Your task to perform on an android device: Show me popular games on the Play Store Image 0: 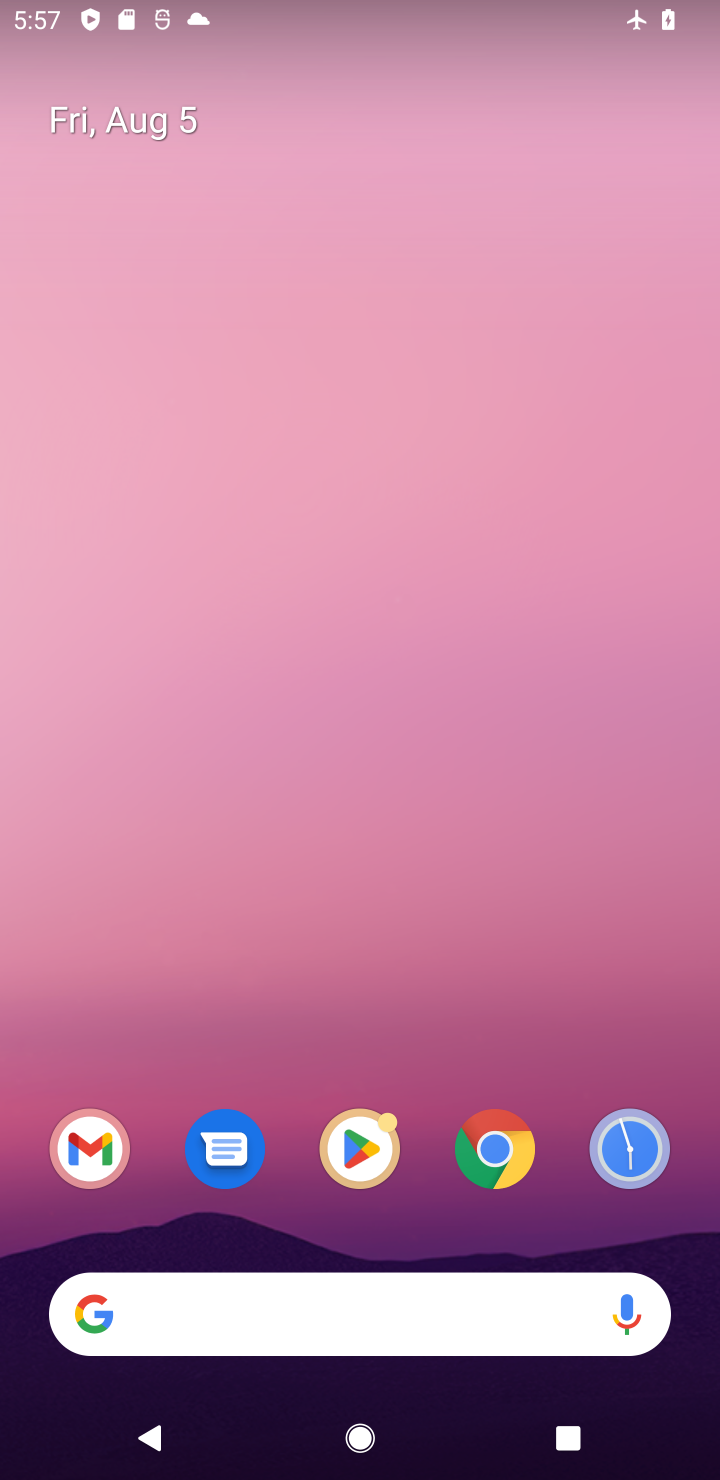
Step 0: click (350, 1152)
Your task to perform on an android device: Show me popular games on the Play Store Image 1: 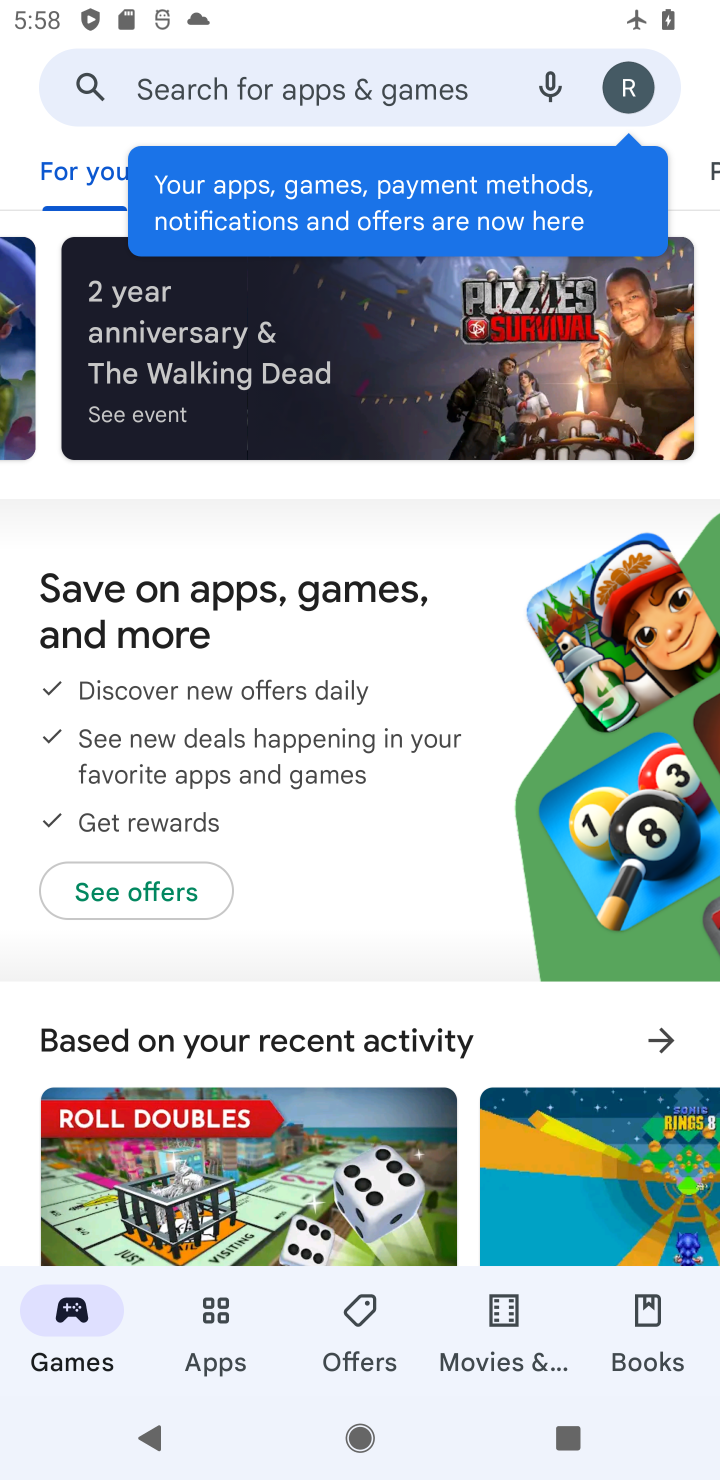
Step 1: click (696, 213)
Your task to perform on an android device: Show me popular games on the Play Store Image 2: 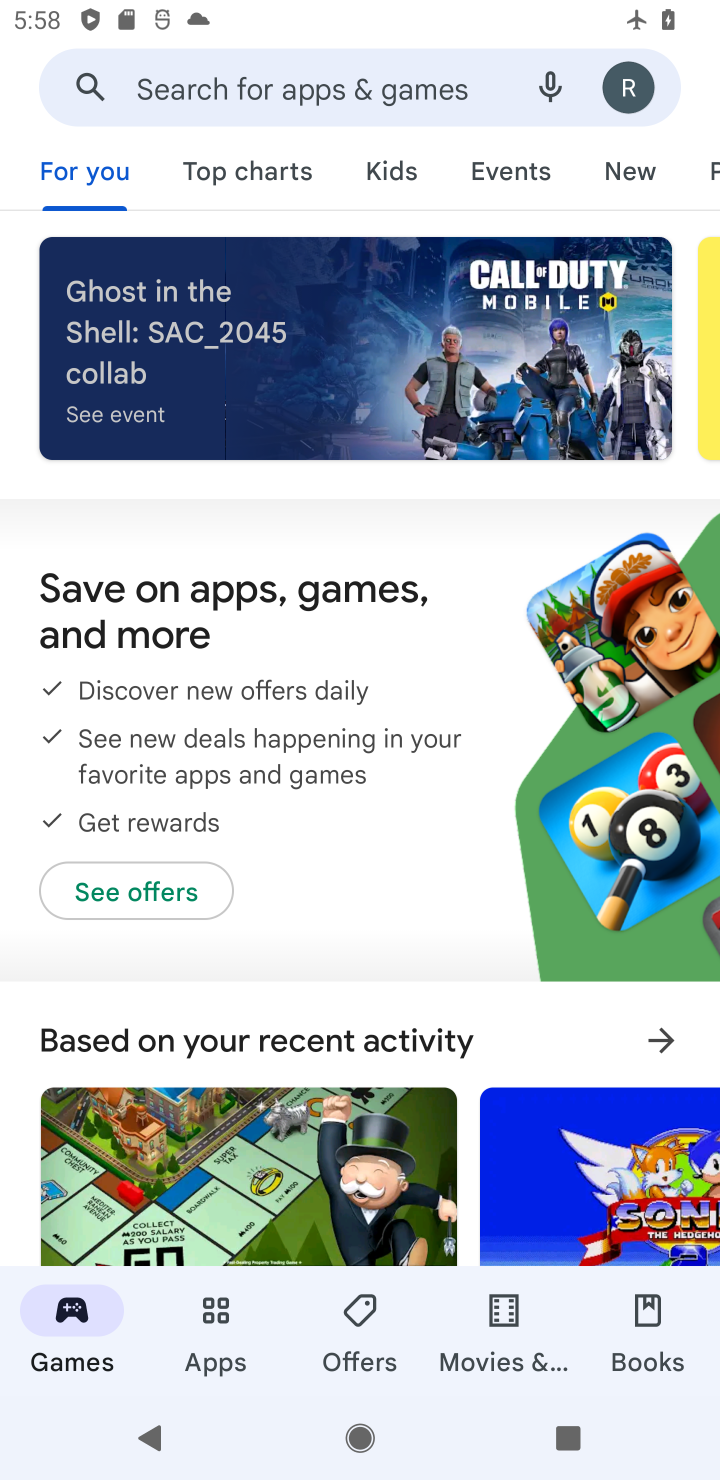
Step 2: click (624, 166)
Your task to perform on an android device: Show me popular games on the Play Store Image 3: 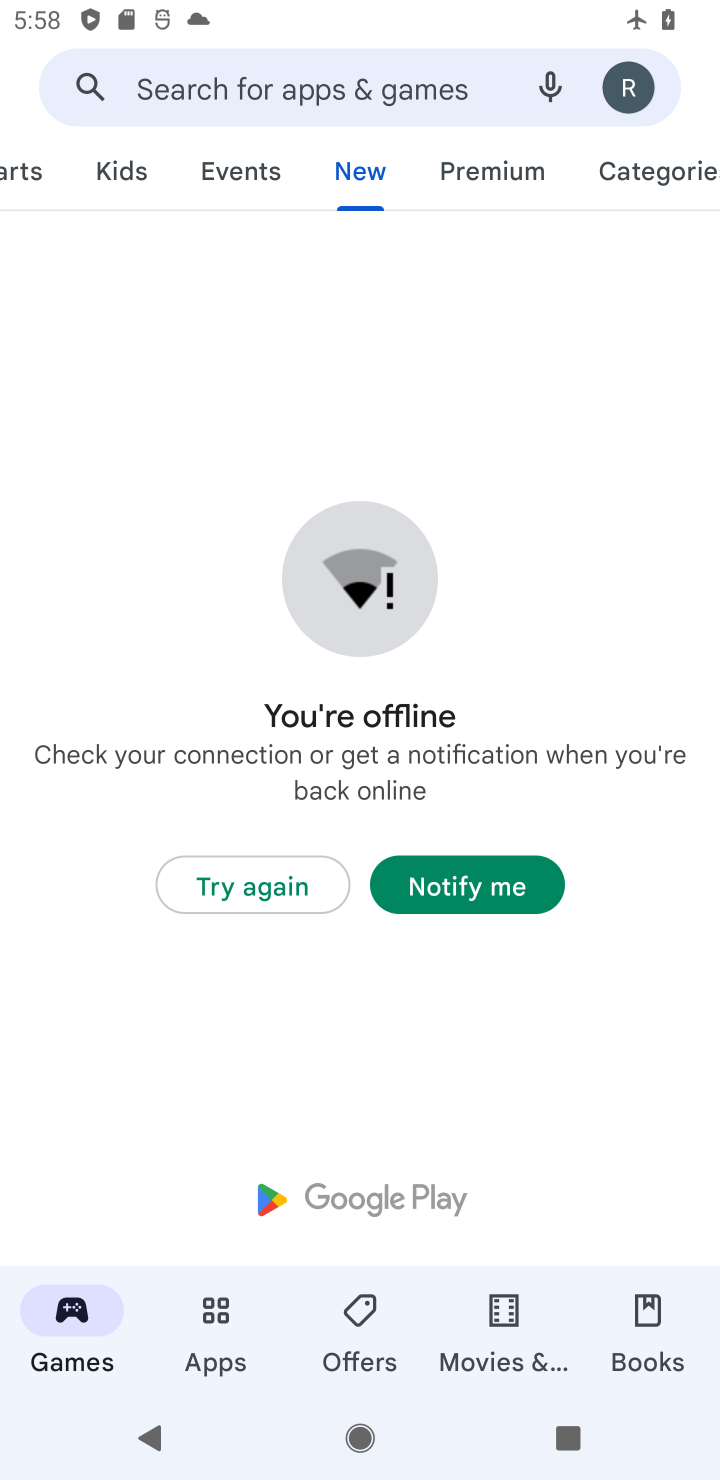
Step 3: click (22, 175)
Your task to perform on an android device: Show me popular games on the Play Store Image 4: 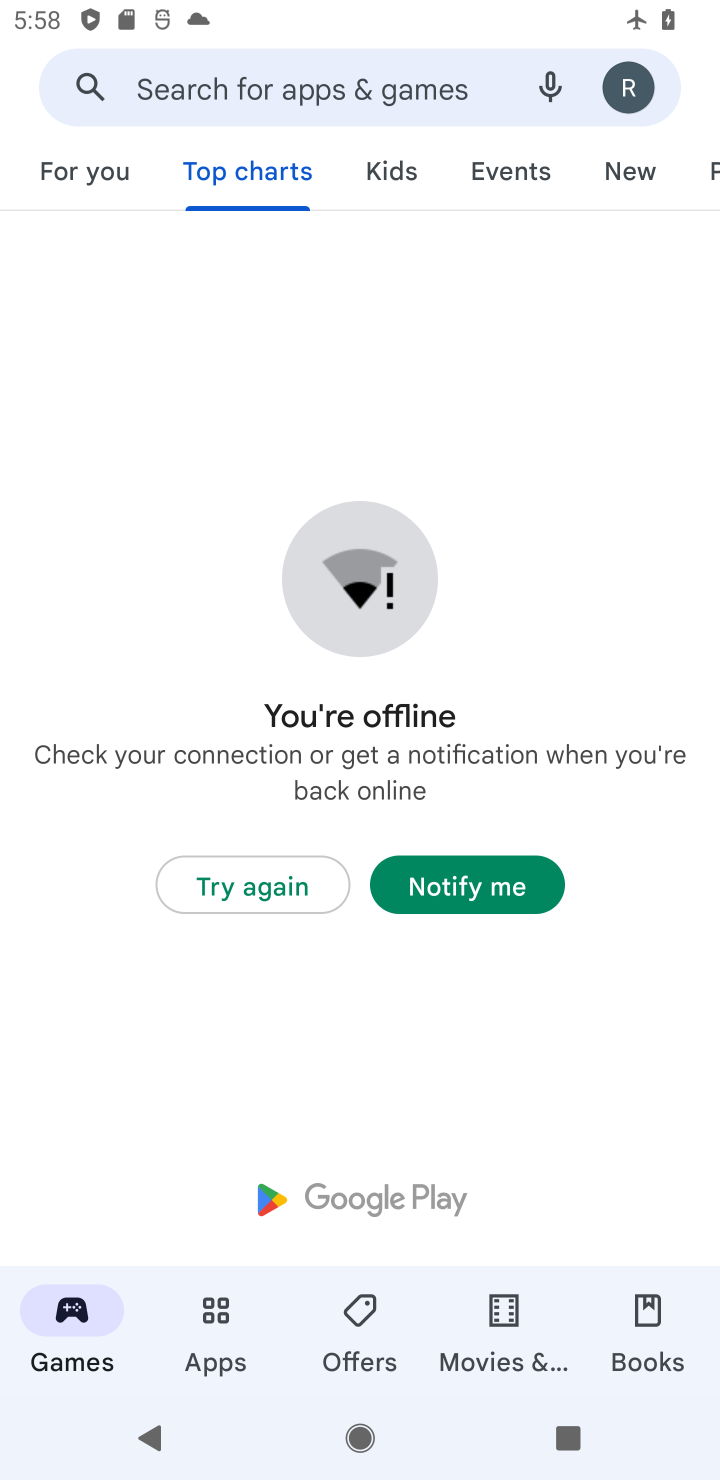
Step 4: drag from (451, 18) to (278, 1098)
Your task to perform on an android device: Show me popular games on the Play Store Image 5: 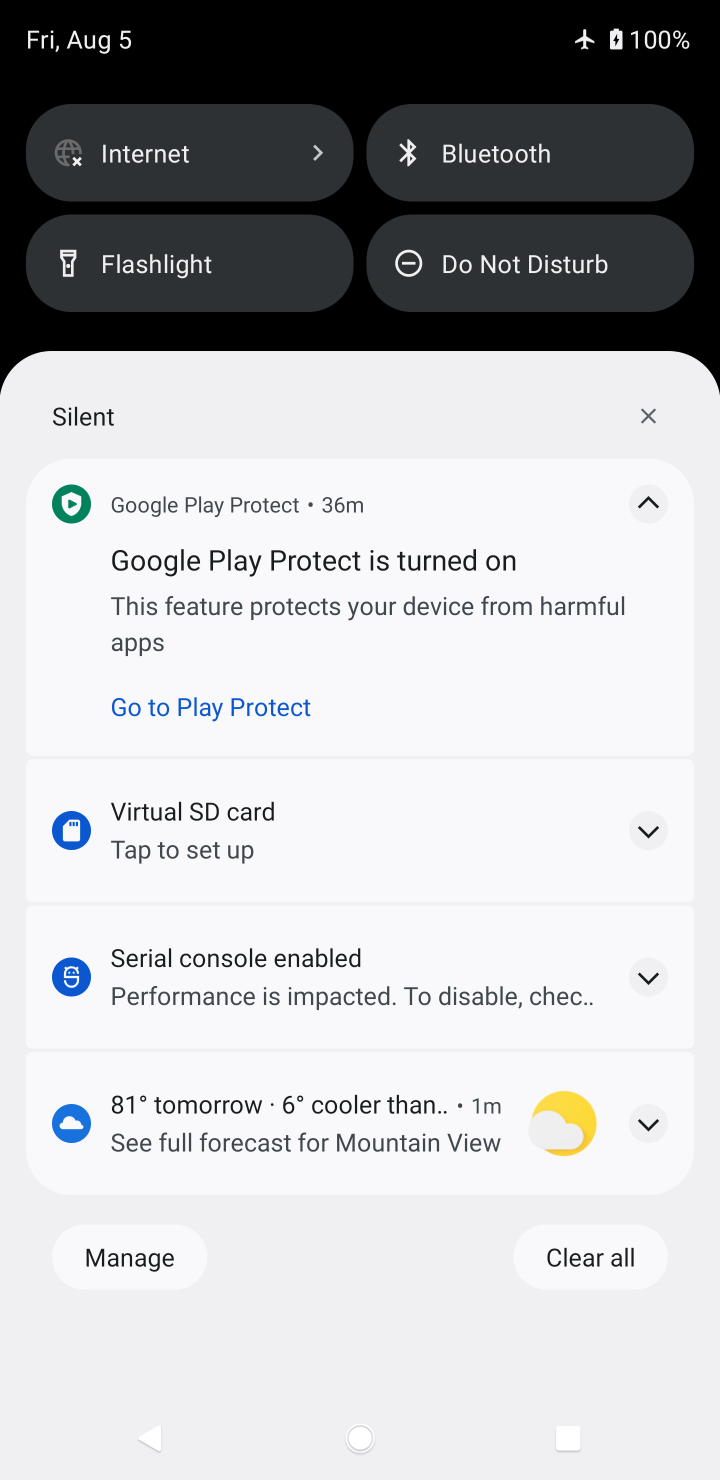
Step 5: drag from (410, 333) to (441, 1047)
Your task to perform on an android device: Show me popular games on the Play Store Image 6: 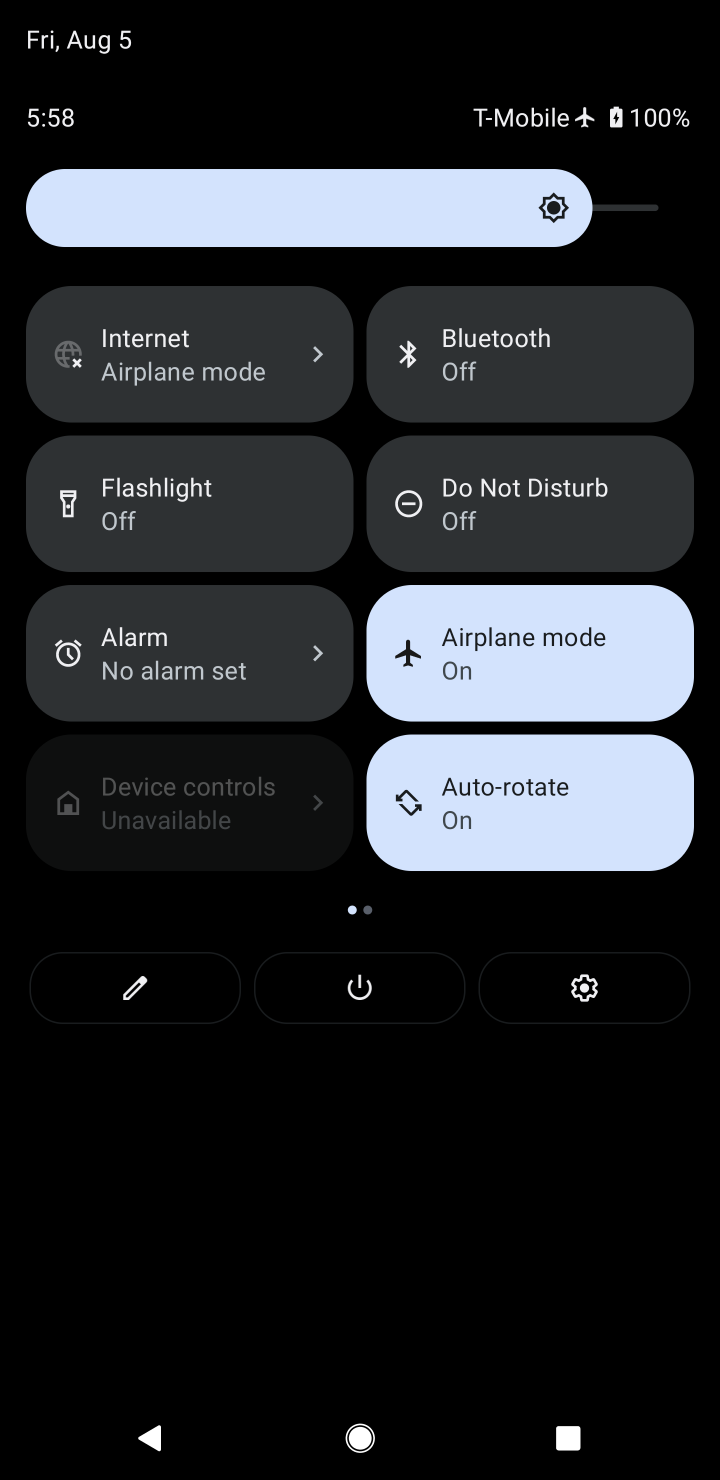
Step 6: click (466, 662)
Your task to perform on an android device: Show me popular games on the Play Store Image 7: 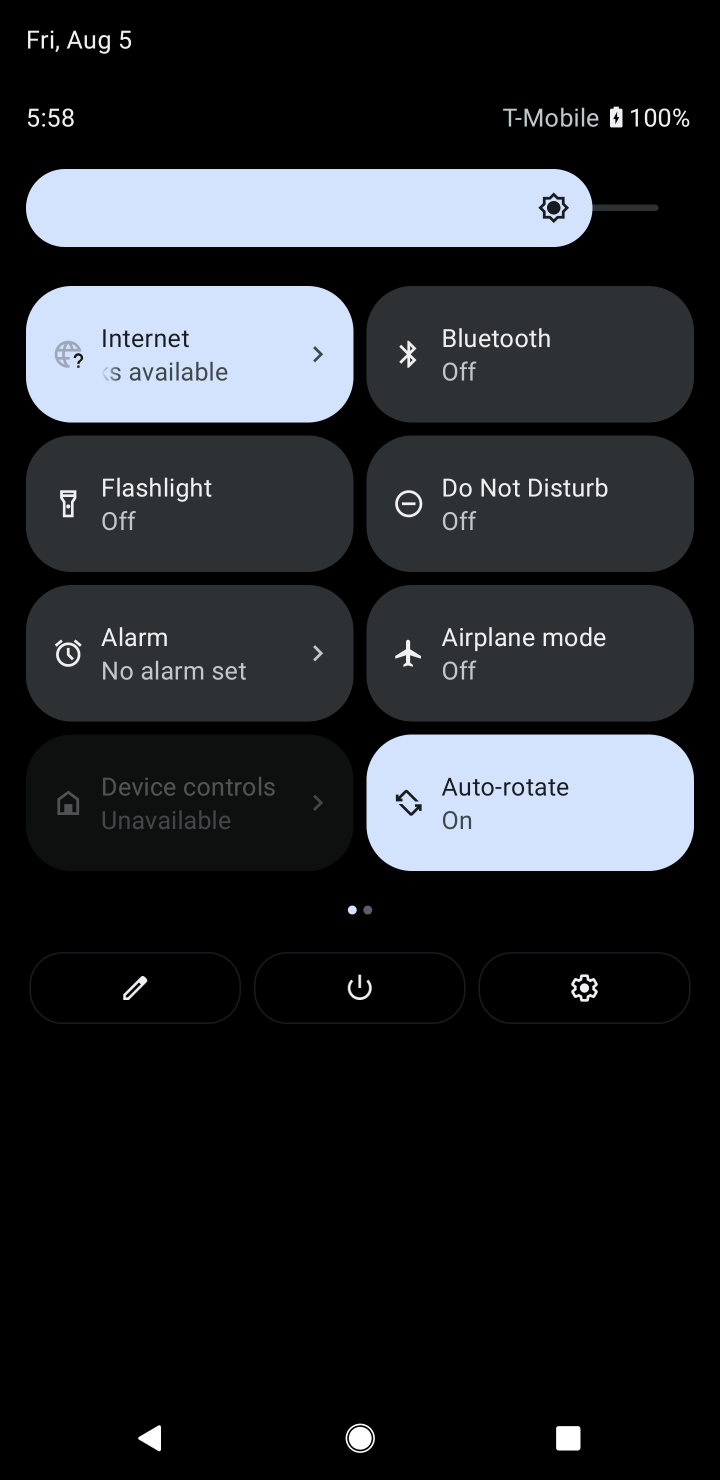
Step 7: click (500, 1288)
Your task to perform on an android device: Show me popular games on the Play Store Image 8: 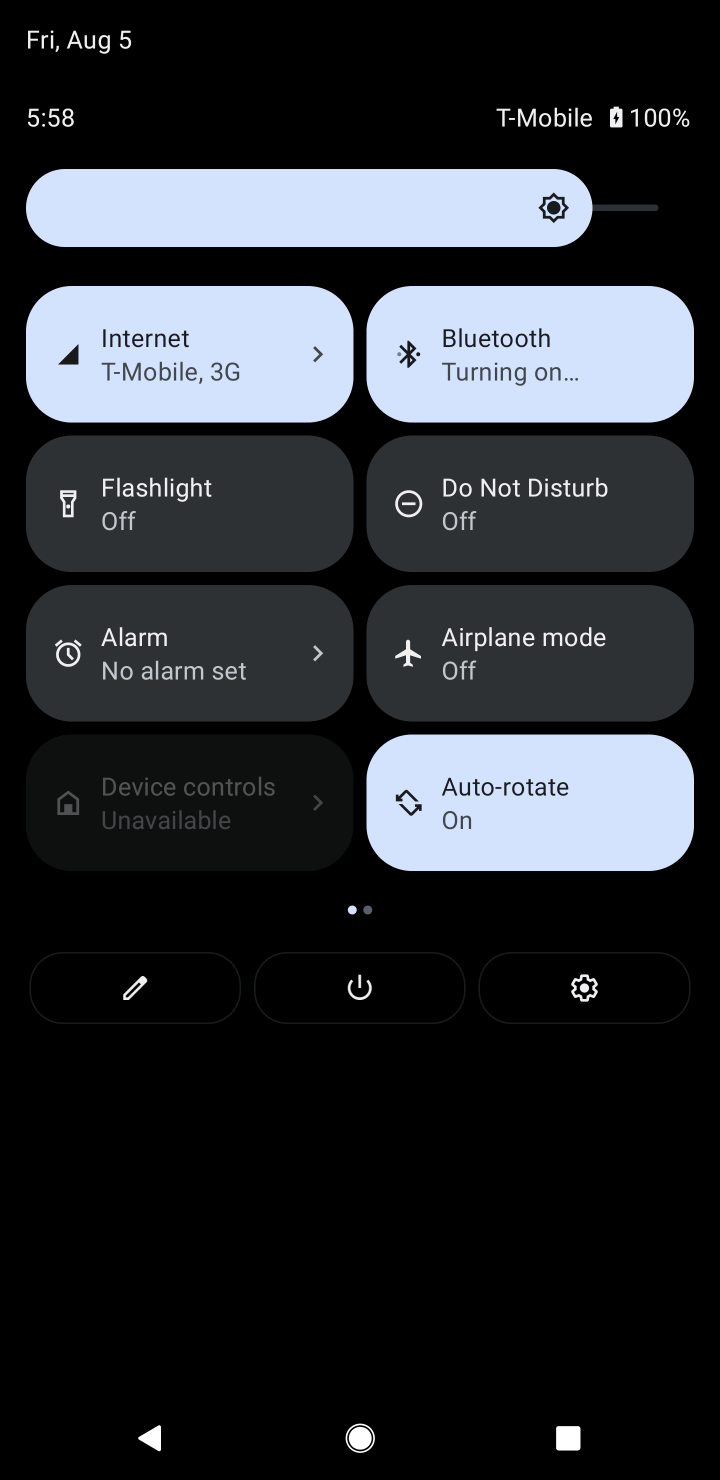
Step 8: drag from (500, 1288) to (532, 836)
Your task to perform on an android device: Show me popular games on the Play Store Image 9: 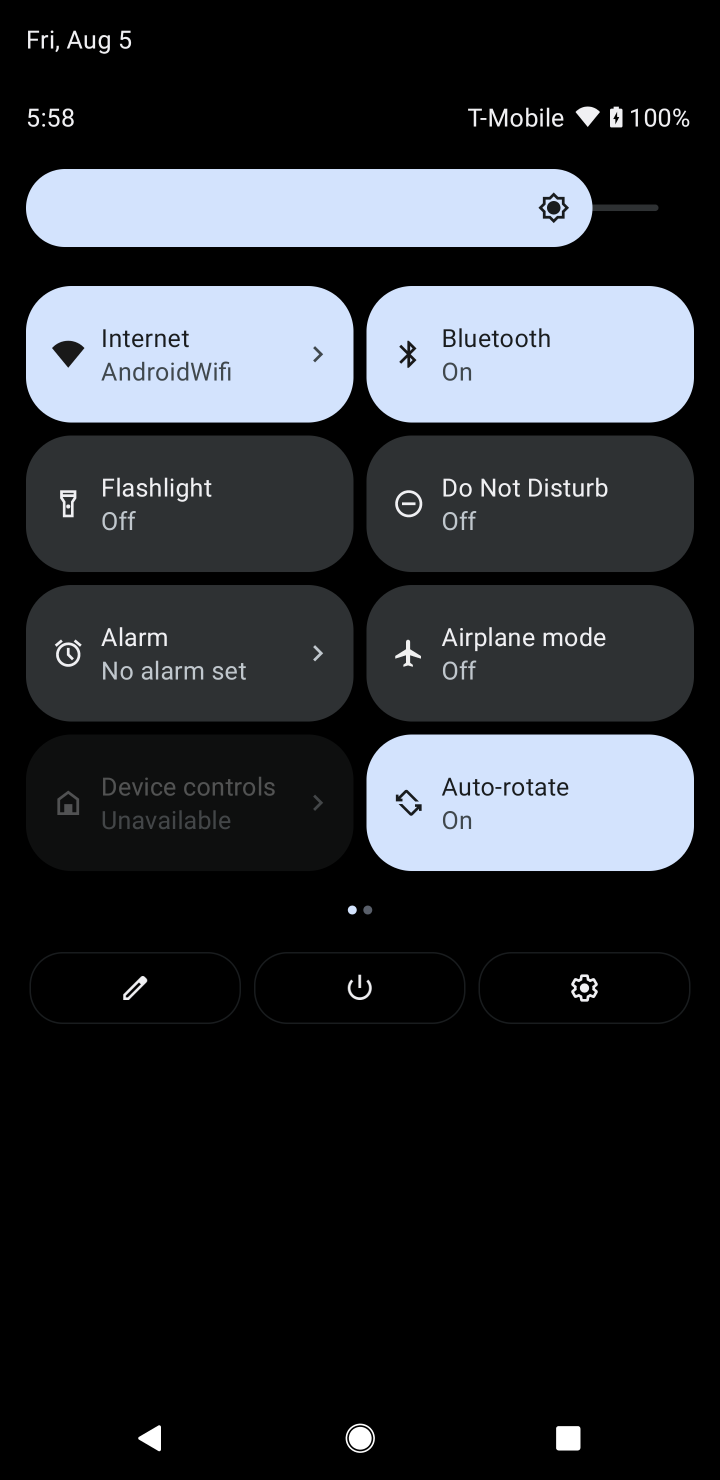
Step 9: drag from (467, 1323) to (307, 288)
Your task to perform on an android device: Show me popular games on the Play Store Image 10: 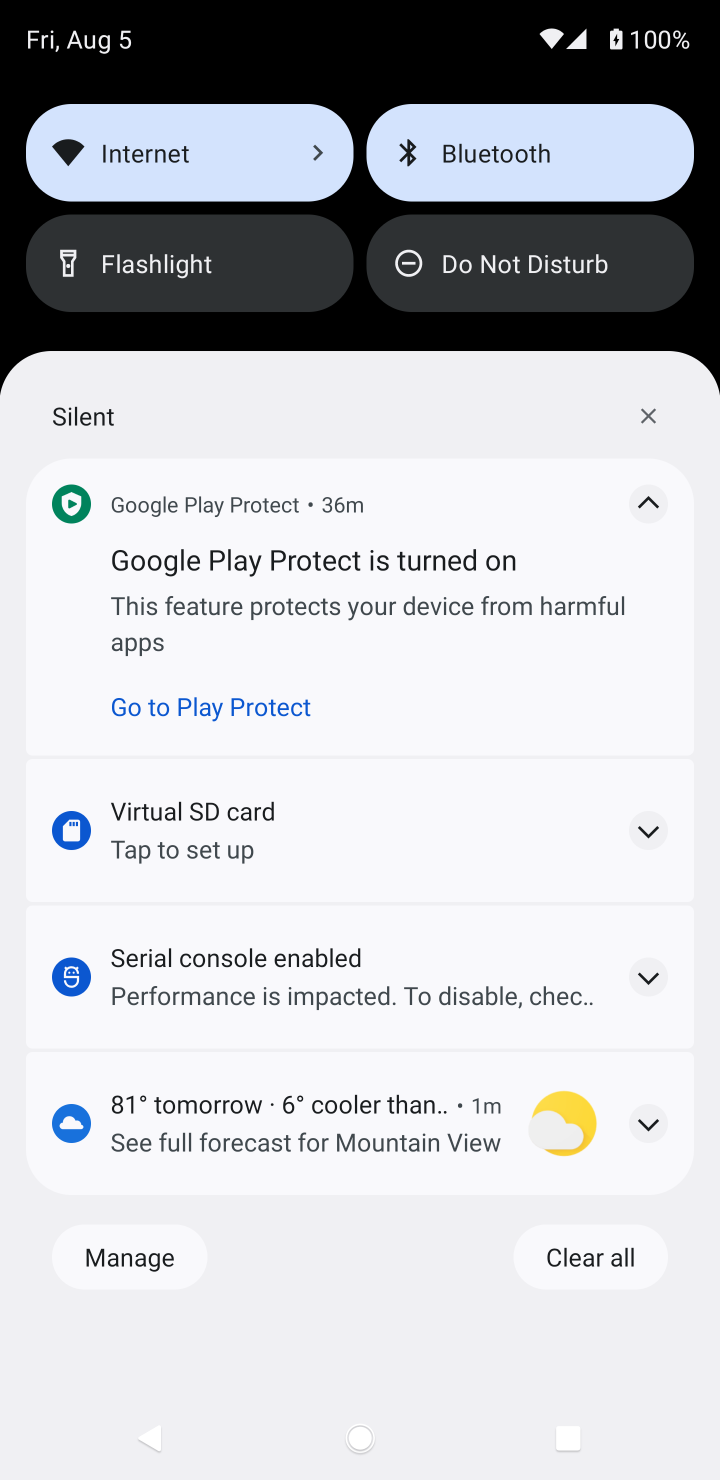
Step 10: click (646, 409)
Your task to perform on an android device: Show me popular games on the Play Store Image 11: 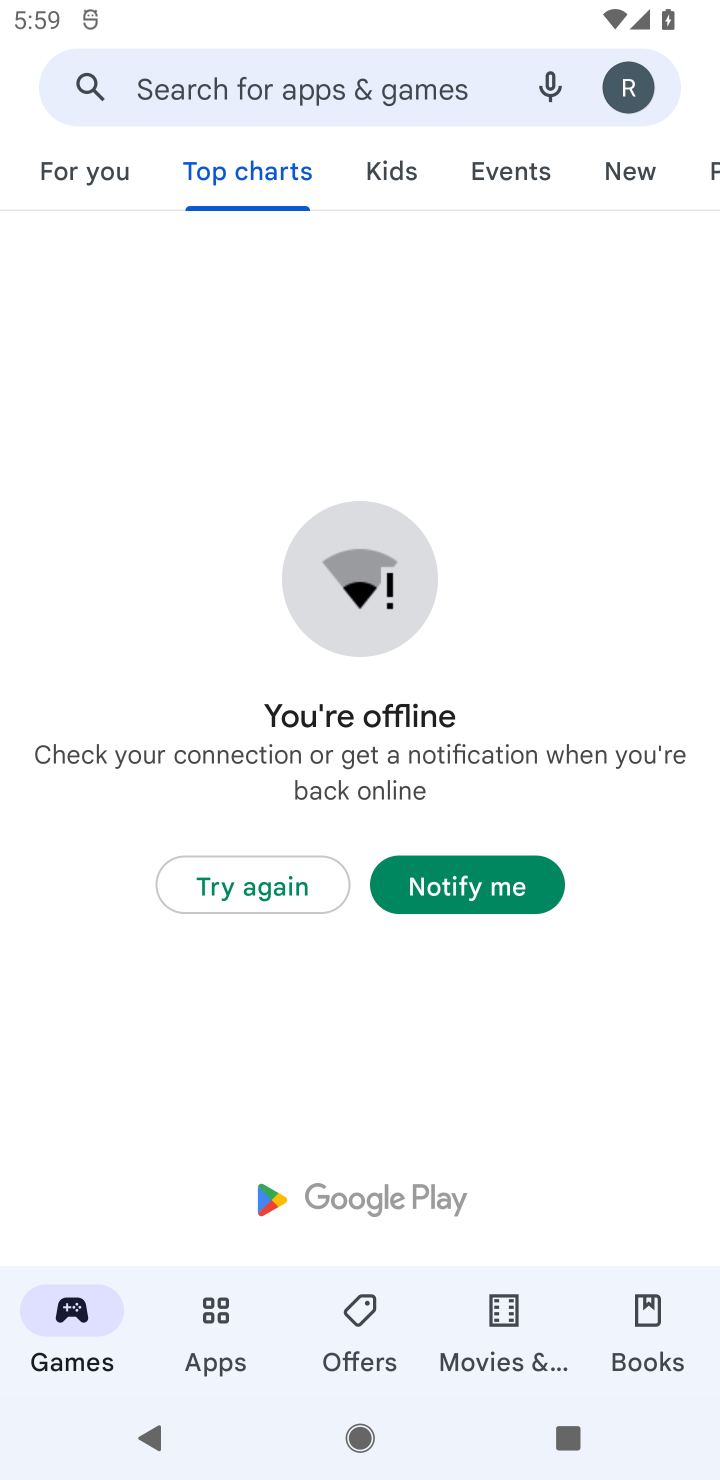
Step 11: click (285, 884)
Your task to perform on an android device: Show me popular games on the Play Store Image 12: 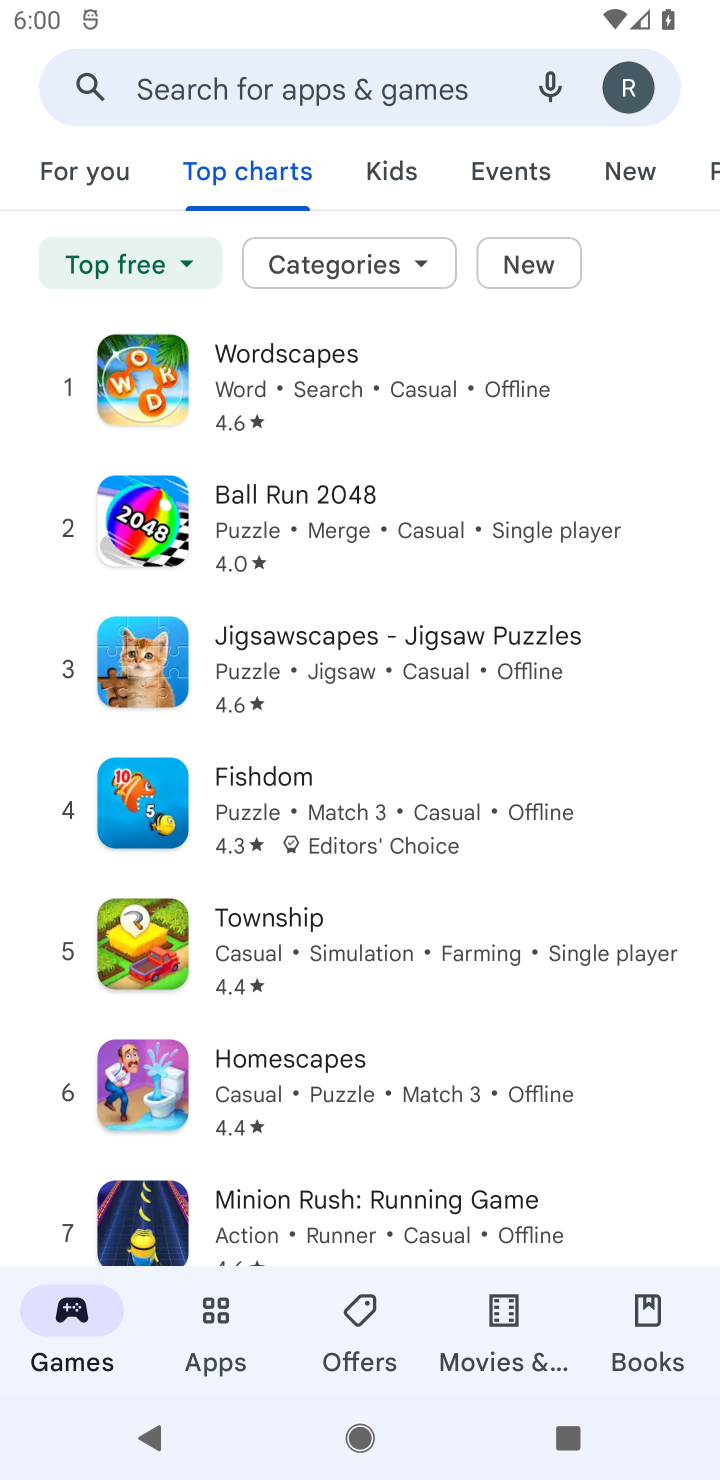
Step 12: task complete